Your task to perform on an android device: What's on my calendar tomorrow? Image 0: 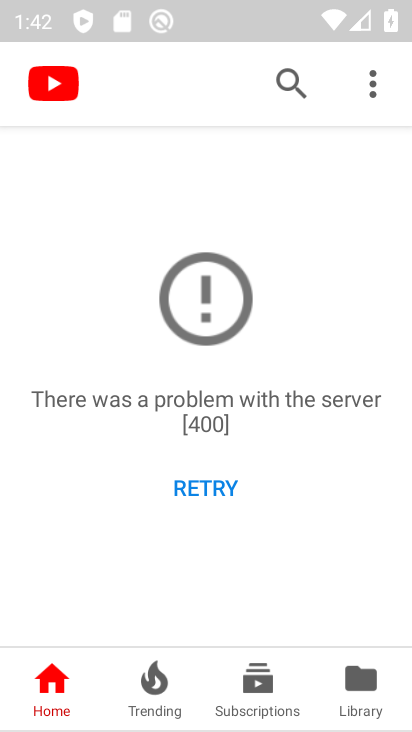
Step 0: press back button
Your task to perform on an android device: What's on my calendar tomorrow? Image 1: 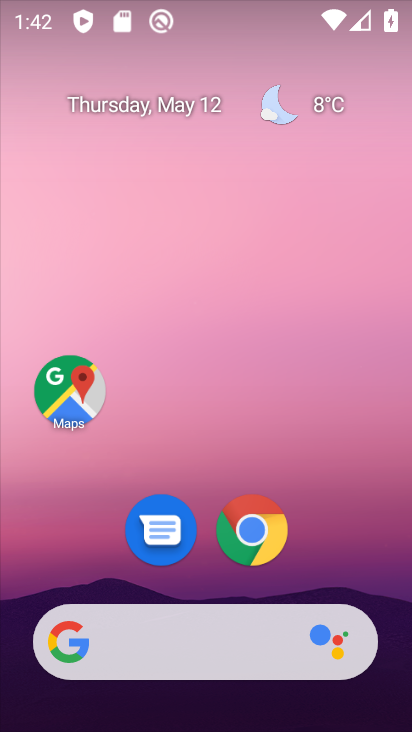
Step 1: drag from (12, 658) to (245, 128)
Your task to perform on an android device: What's on my calendar tomorrow? Image 2: 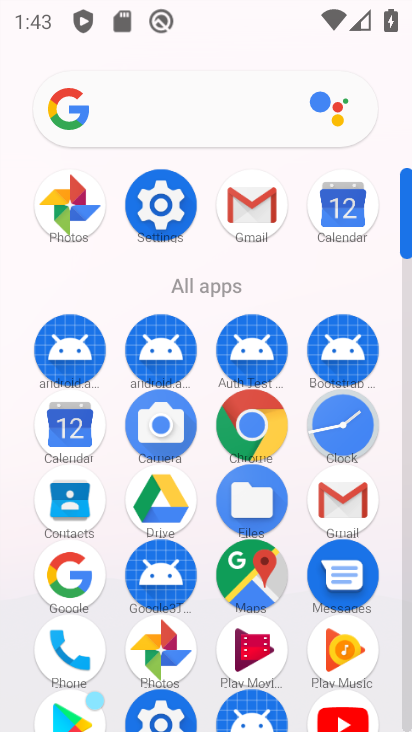
Step 2: click (68, 442)
Your task to perform on an android device: What's on my calendar tomorrow? Image 3: 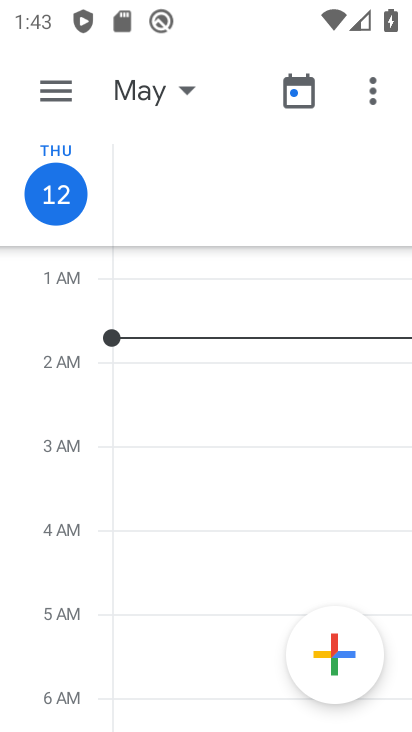
Step 3: click (170, 82)
Your task to perform on an android device: What's on my calendar tomorrow? Image 4: 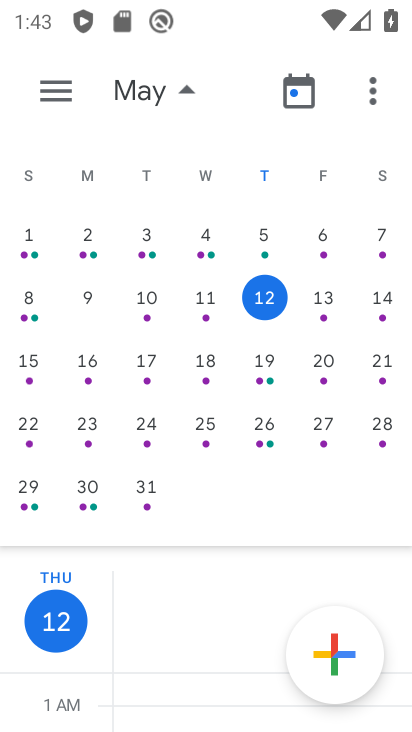
Step 4: click (311, 298)
Your task to perform on an android device: What's on my calendar tomorrow? Image 5: 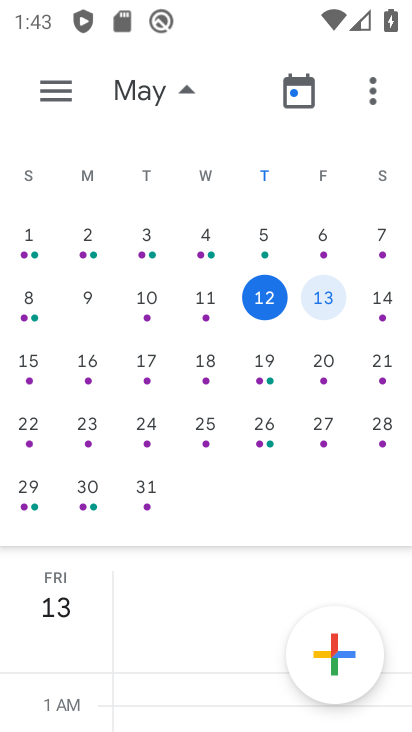
Step 5: click (278, 293)
Your task to perform on an android device: What's on my calendar tomorrow? Image 6: 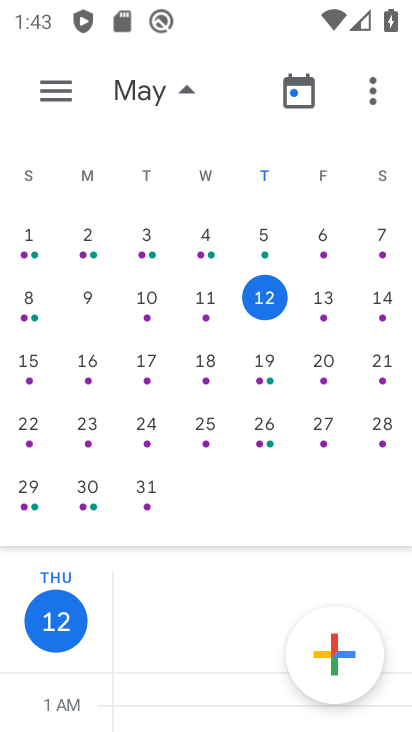
Step 6: task complete